Your task to perform on an android device: Do I have any events today? Image 0: 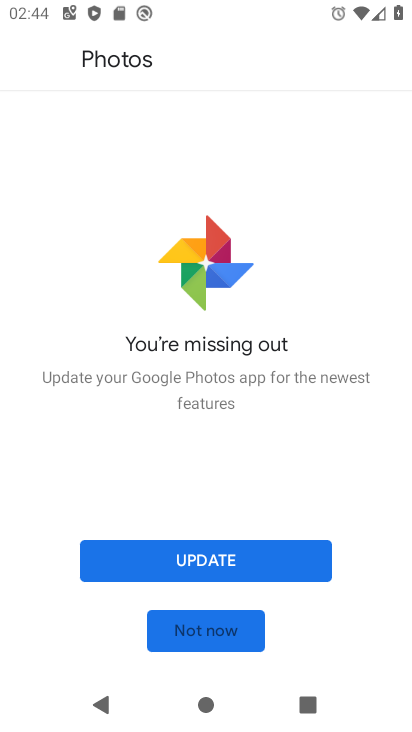
Step 0: press home button
Your task to perform on an android device: Do I have any events today? Image 1: 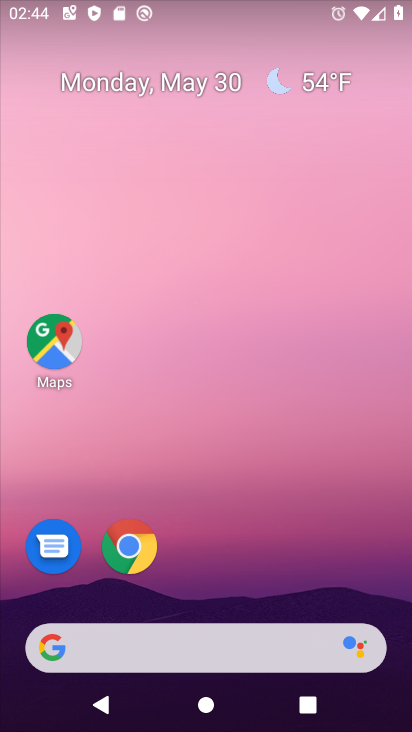
Step 1: drag from (204, 610) to (283, 60)
Your task to perform on an android device: Do I have any events today? Image 2: 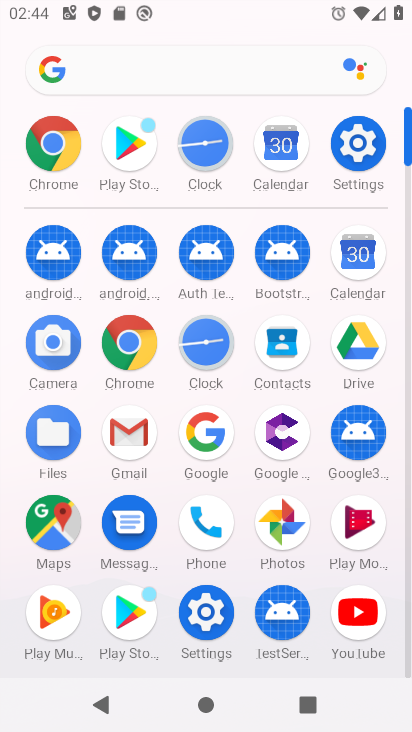
Step 2: click (281, 138)
Your task to perform on an android device: Do I have any events today? Image 3: 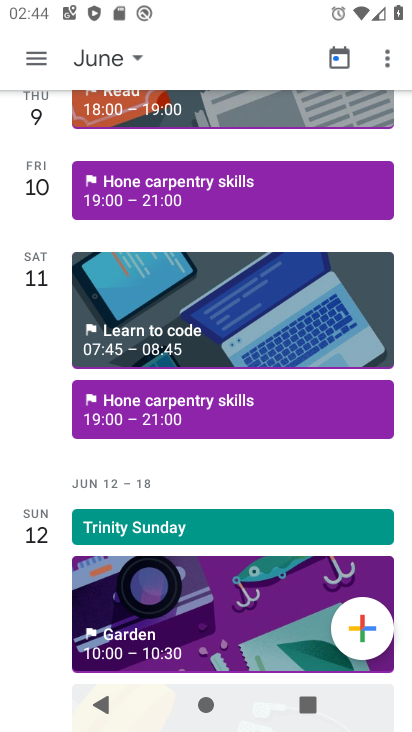
Step 3: drag from (38, 128) to (36, 662)
Your task to perform on an android device: Do I have any events today? Image 4: 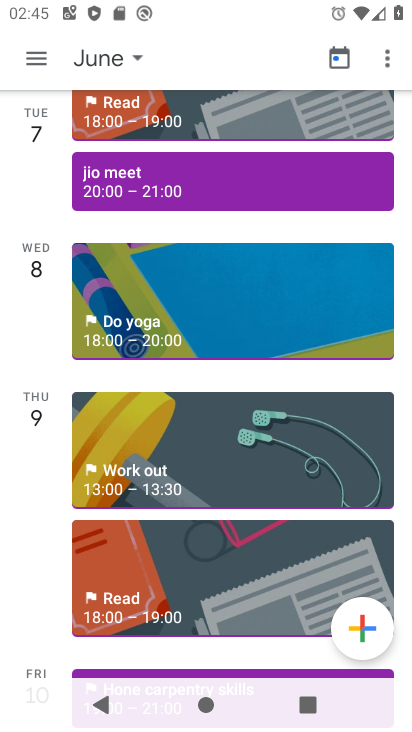
Step 4: click (126, 60)
Your task to perform on an android device: Do I have any events today? Image 5: 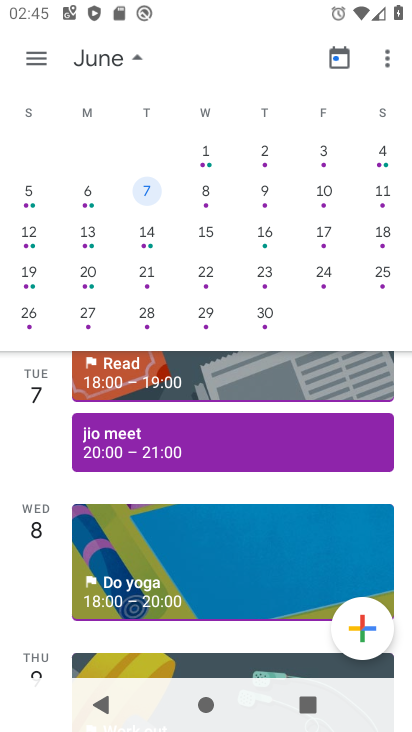
Step 5: drag from (41, 237) to (409, 215)
Your task to perform on an android device: Do I have any events today? Image 6: 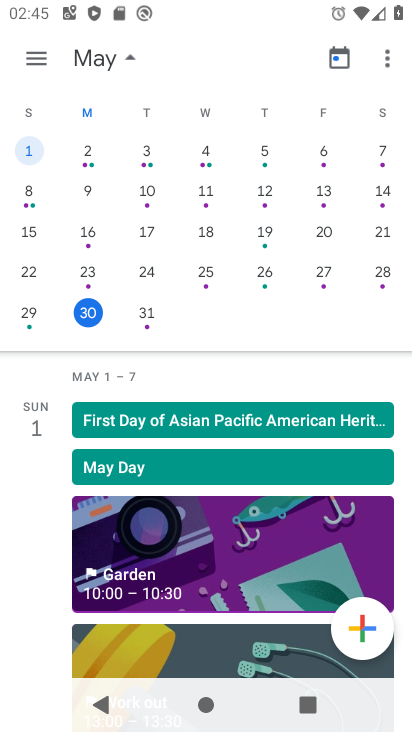
Step 6: click (88, 309)
Your task to perform on an android device: Do I have any events today? Image 7: 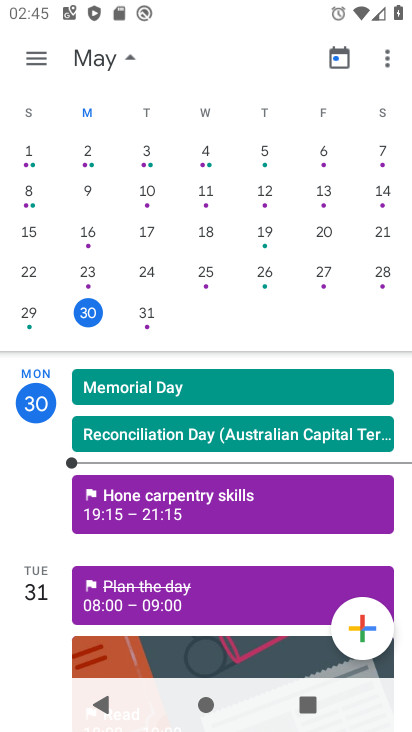
Step 7: click (63, 417)
Your task to perform on an android device: Do I have any events today? Image 8: 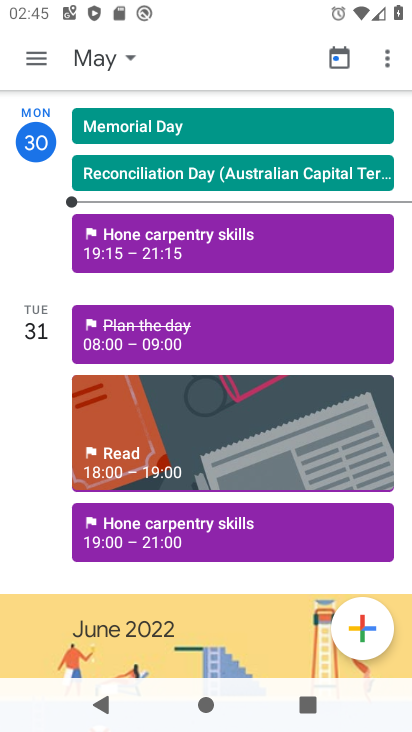
Step 8: click (132, 49)
Your task to perform on an android device: Do I have any events today? Image 9: 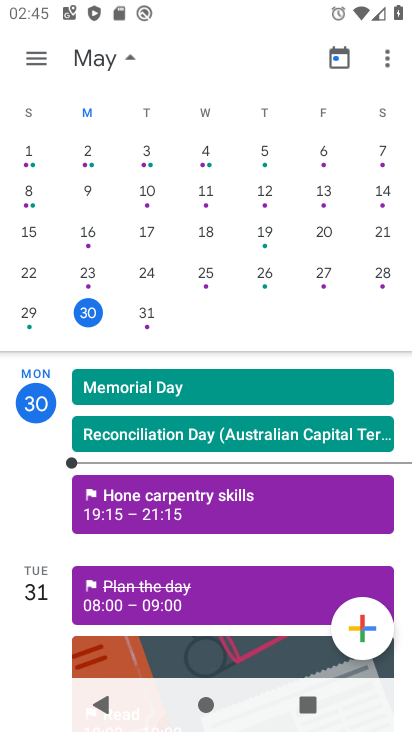
Step 9: click (132, 53)
Your task to perform on an android device: Do I have any events today? Image 10: 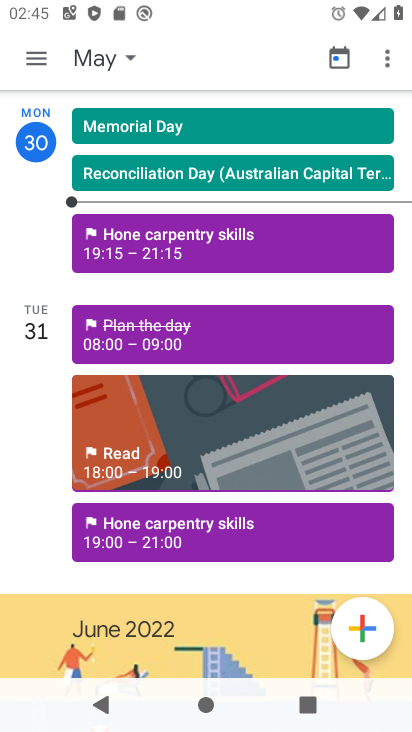
Step 10: click (49, 160)
Your task to perform on an android device: Do I have any events today? Image 11: 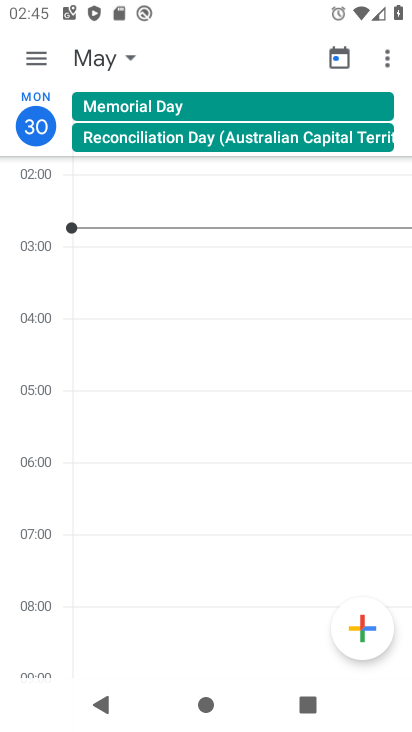
Step 11: click (42, 423)
Your task to perform on an android device: Do I have any events today? Image 12: 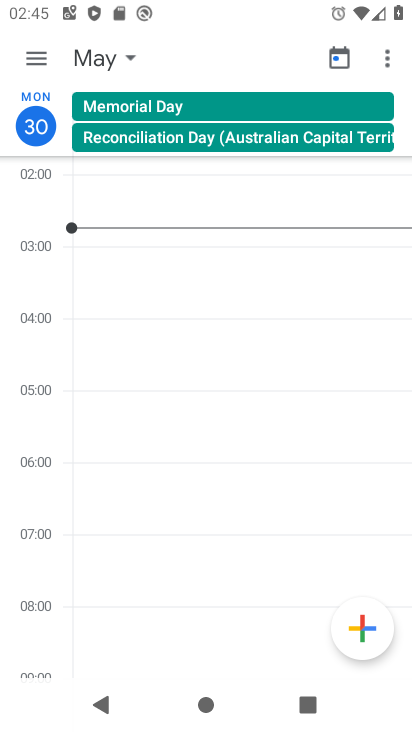
Step 12: task complete